Your task to perform on an android device: change the clock display to show seconds Image 0: 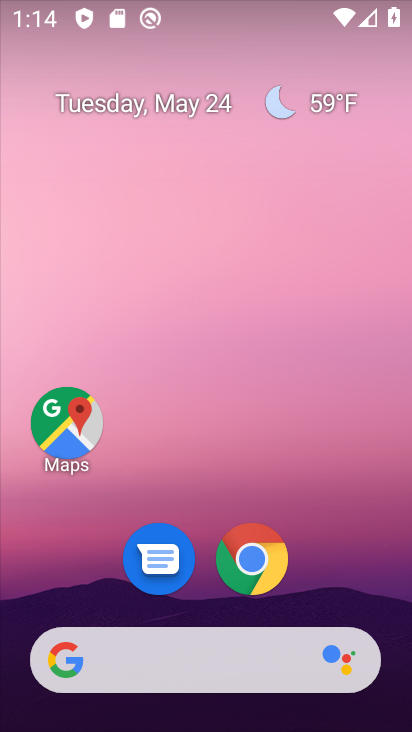
Step 0: drag from (401, 641) to (305, 75)
Your task to perform on an android device: change the clock display to show seconds Image 1: 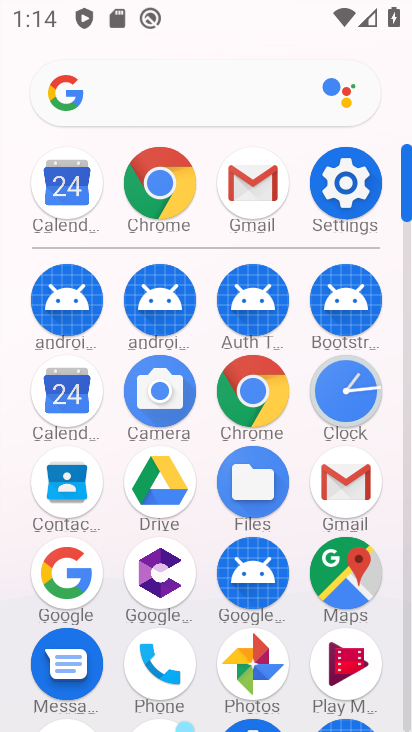
Step 1: click (348, 375)
Your task to perform on an android device: change the clock display to show seconds Image 2: 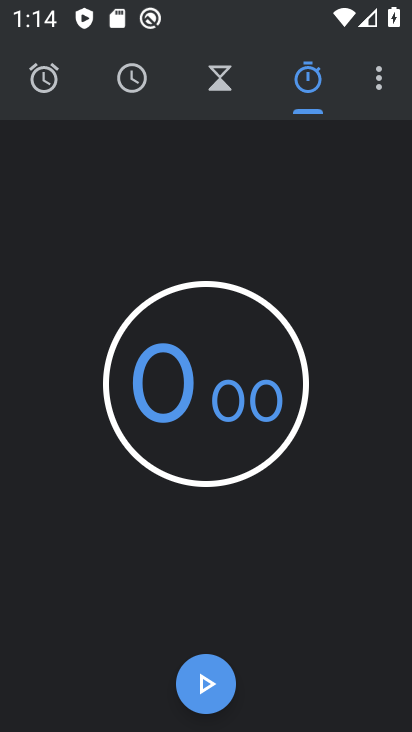
Step 2: click (382, 78)
Your task to perform on an android device: change the clock display to show seconds Image 3: 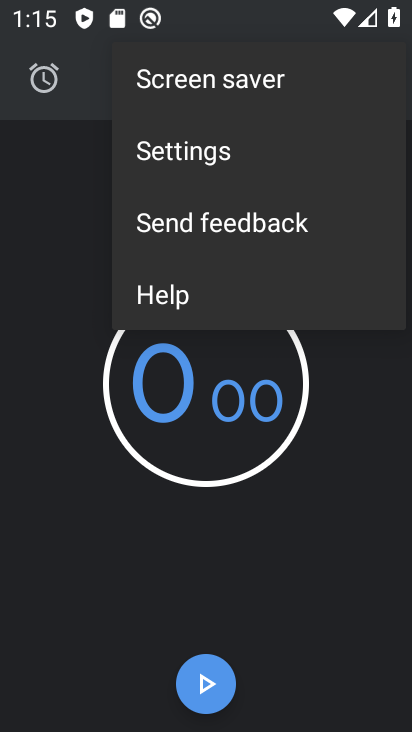
Step 3: click (219, 143)
Your task to perform on an android device: change the clock display to show seconds Image 4: 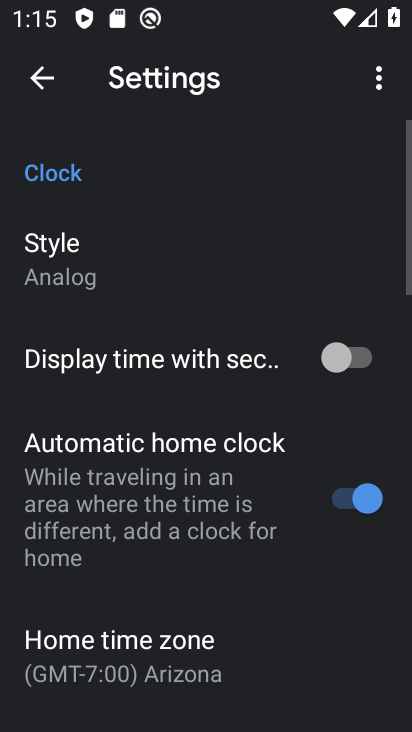
Step 4: click (294, 354)
Your task to perform on an android device: change the clock display to show seconds Image 5: 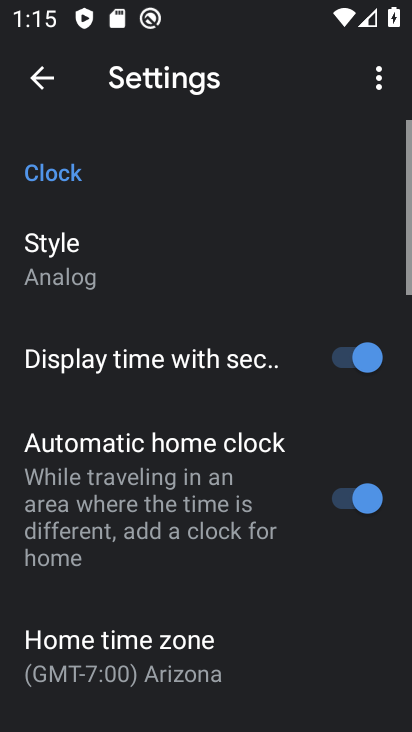
Step 5: task complete